Your task to perform on an android device: What's the weather going to be tomorrow? Image 0: 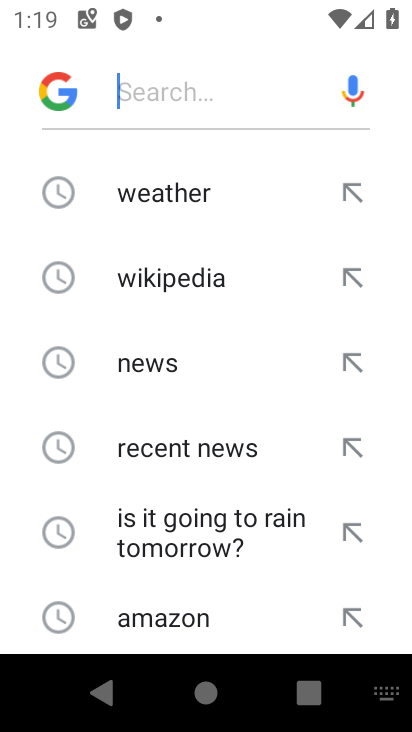
Step 0: press home button
Your task to perform on an android device: What's the weather going to be tomorrow? Image 1: 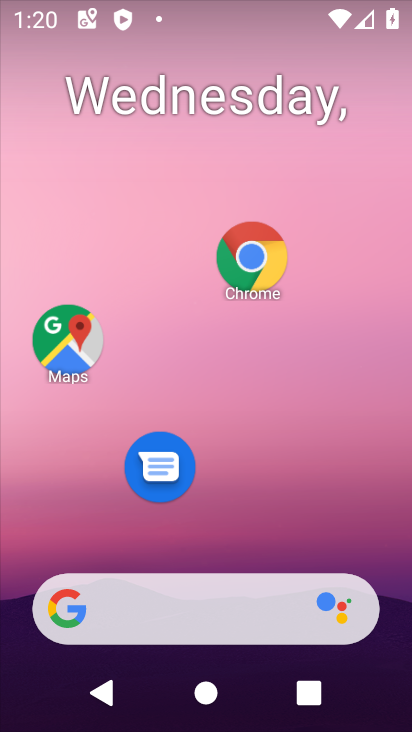
Step 1: click (243, 238)
Your task to perform on an android device: What's the weather going to be tomorrow? Image 2: 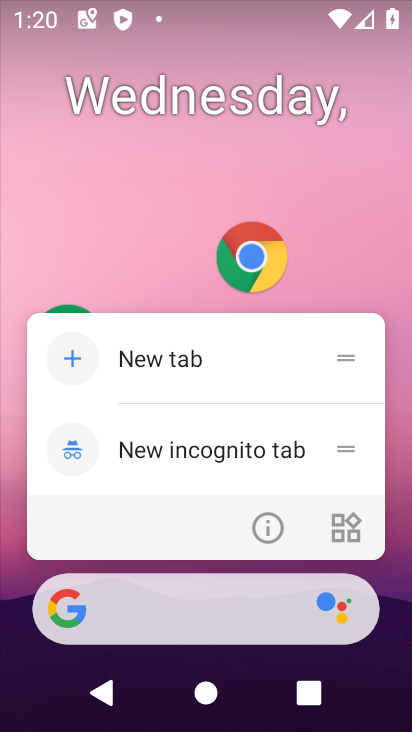
Step 2: click (256, 272)
Your task to perform on an android device: What's the weather going to be tomorrow? Image 3: 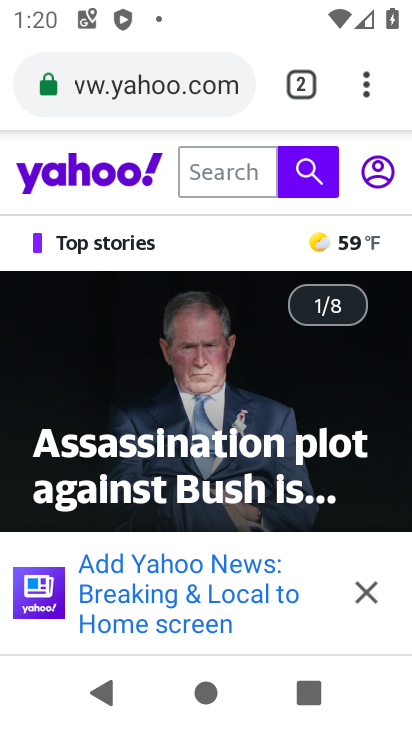
Step 3: click (118, 81)
Your task to perform on an android device: What's the weather going to be tomorrow? Image 4: 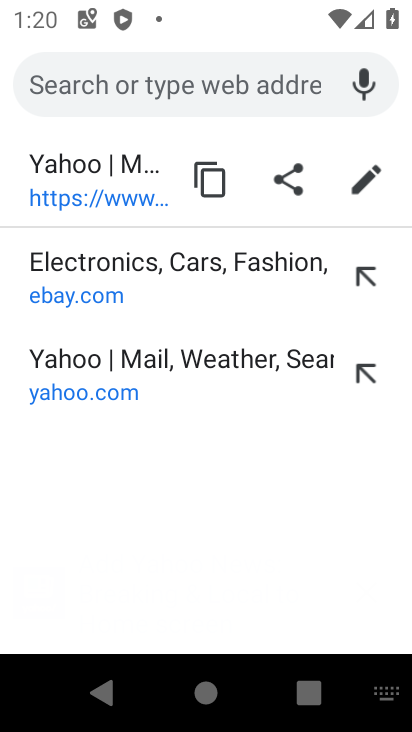
Step 4: type "What's the weather going to be tomorrow?"
Your task to perform on an android device: What's the weather going to be tomorrow? Image 5: 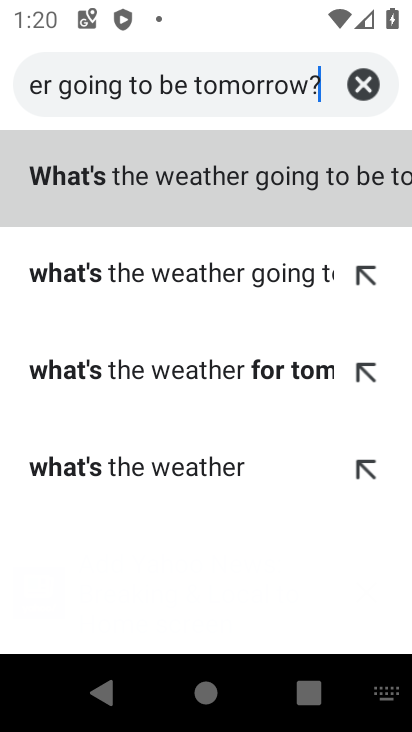
Step 5: type ""
Your task to perform on an android device: What's the weather going to be tomorrow? Image 6: 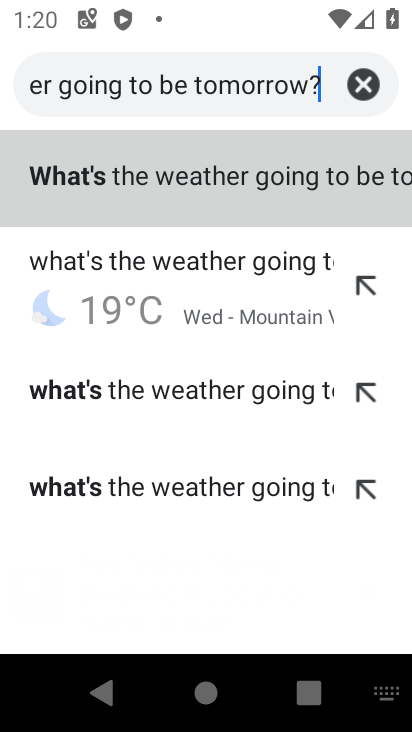
Step 6: click (129, 160)
Your task to perform on an android device: What's the weather going to be tomorrow? Image 7: 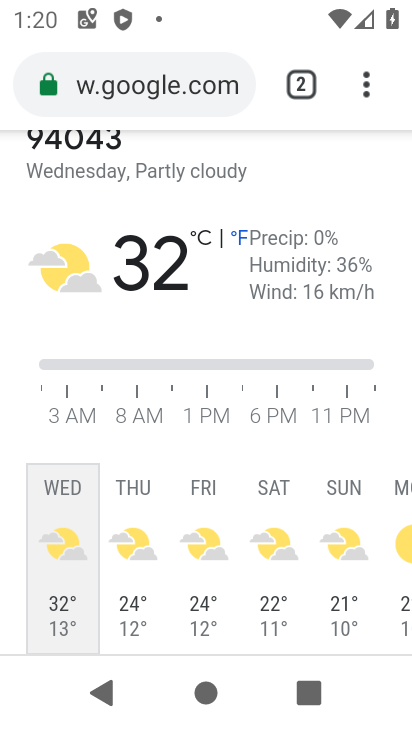
Step 7: task complete